Your task to perform on an android device: turn off notifications settings in the gmail app Image 0: 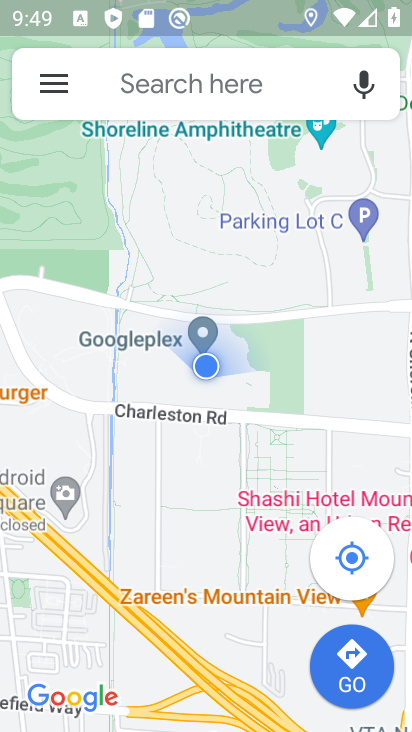
Step 0: press home button
Your task to perform on an android device: turn off notifications settings in the gmail app Image 1: 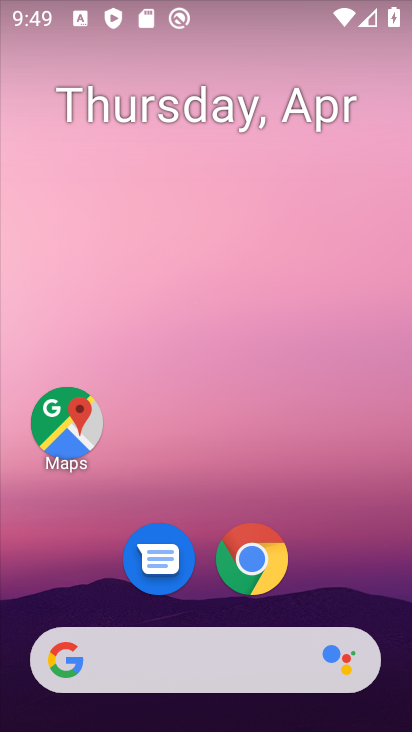
Step 1: drag from (201, 723) to (175, 40)
Your task to perform on an android device: turn off notifications settings in the gmail app Image 2: 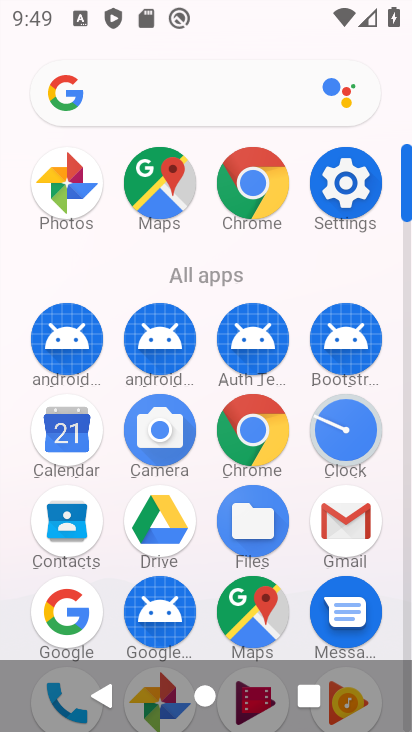
Step 2: click (339, 512)
Your task to perform on an android device: turn off notifications settings in the gmail app Image 3: 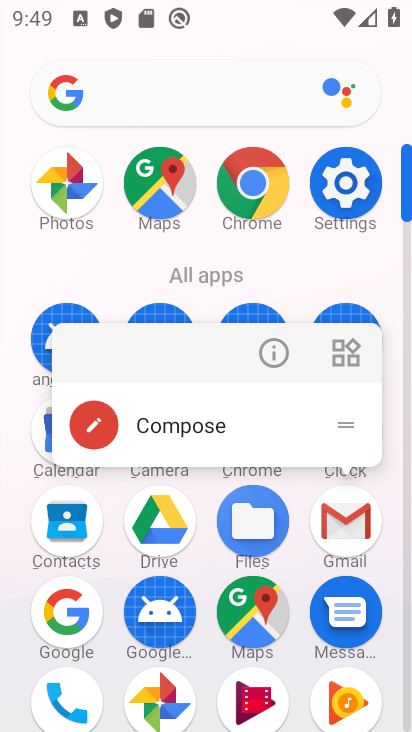
Step 3: click (268, 353)
Your task to perform on an android device: turn off notifications settings in the gmail app Image 4: 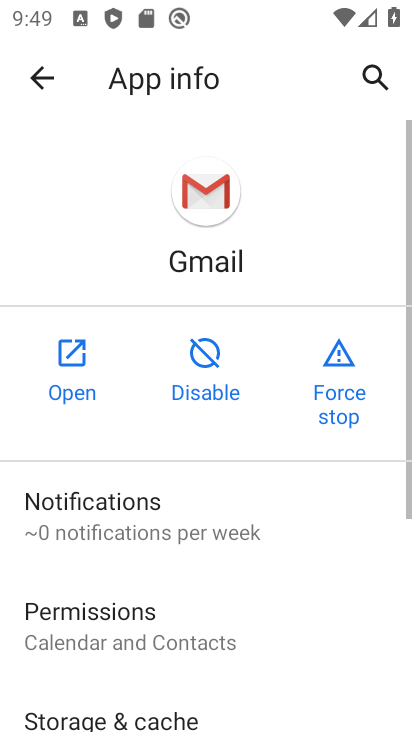
Step 4: click (251, 510)
Your task to perform on an android device: turn off notifications settings in the gmail app Image 5: 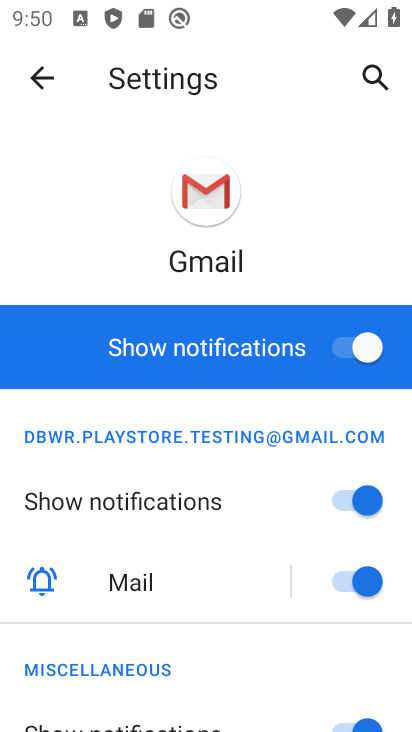
Step 5: click (376, 349)
Your task to perform on an android device: turn off notifications settings in the gmail app Image 6: 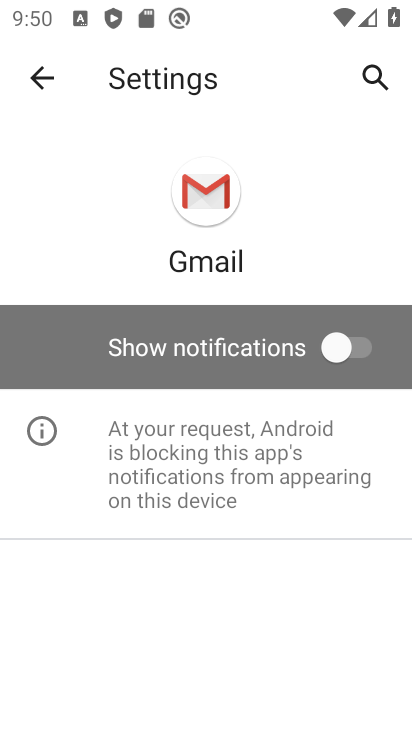
Step 6: task complete